Your task to perform on an android device: Go to eBay Image 0: 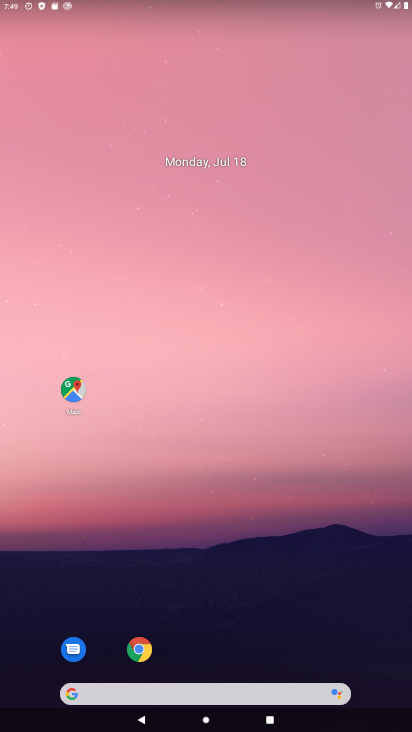
Step 0: drag from (341, 529) to (295, 37)
Your task to perform on an android device: Go to eBay Image 1: 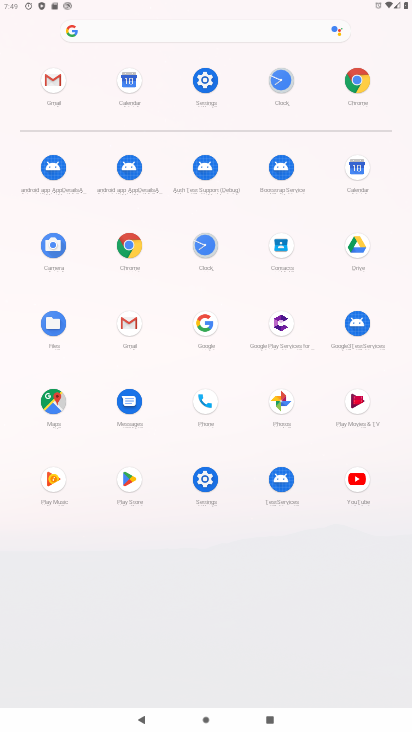
Step 1: click (128, 244)
Your task to perform on an android device: Go to eBay Image 2: 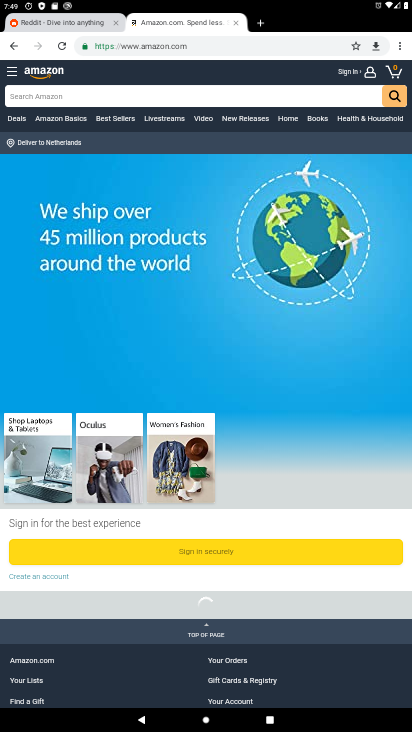
Step 2: click (186, 45)
Your task to perform on an android device: Go to eBay Image 3: 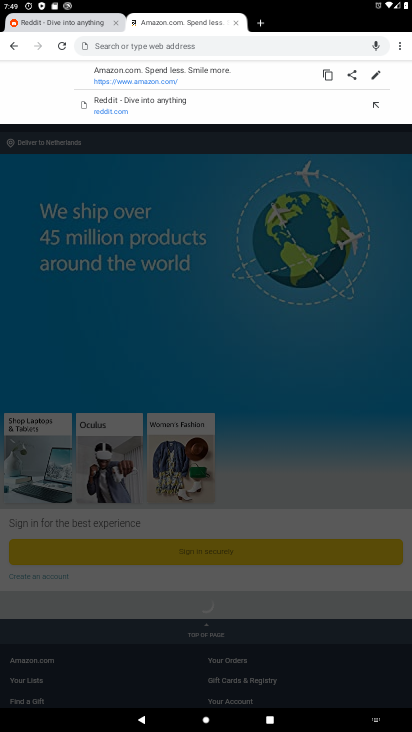
Step 3: type "ebay"
Your task to perform on an android device: Go to eBay Image 4: 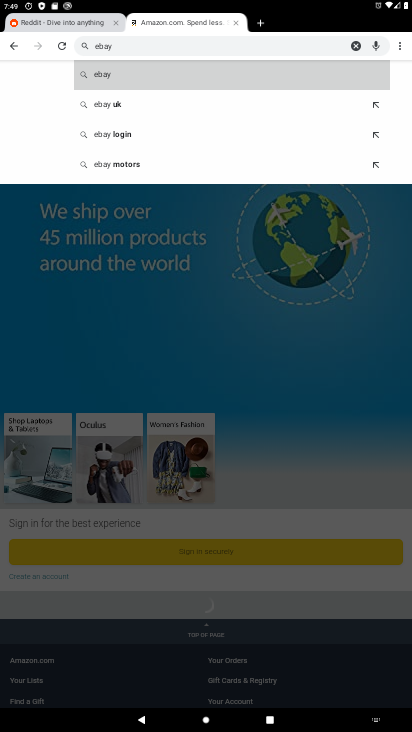
Step 4: click (156, 83)
Your task to perform on an android device: Go to eBay Image 5: 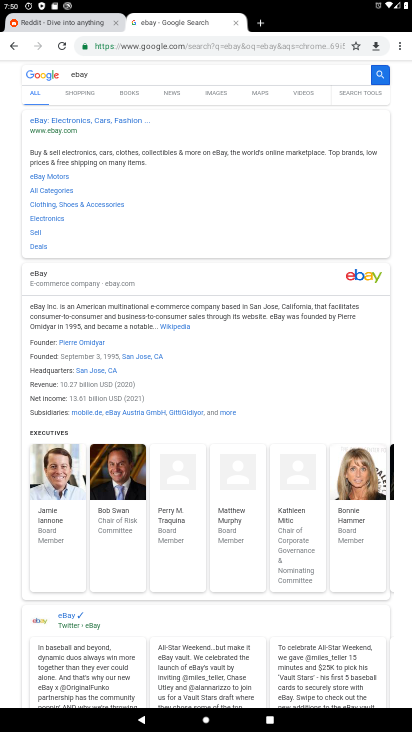
Step 5: click (50, 119)
Your task to perform on an android device: Go to eBay Image 6: 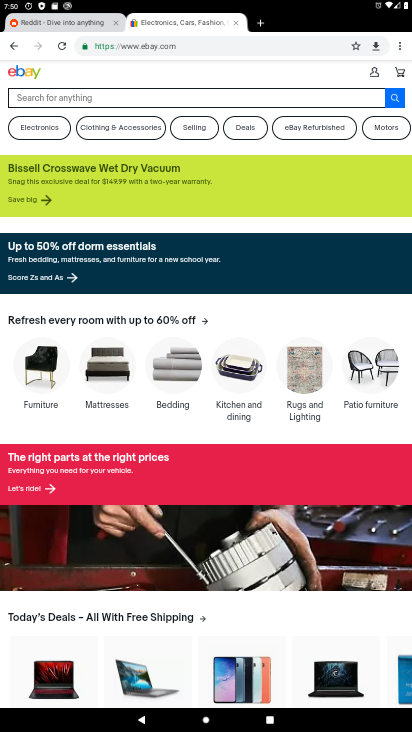
Step 6: task complete